Your task to perform on an android device: turn on location history Image 0: 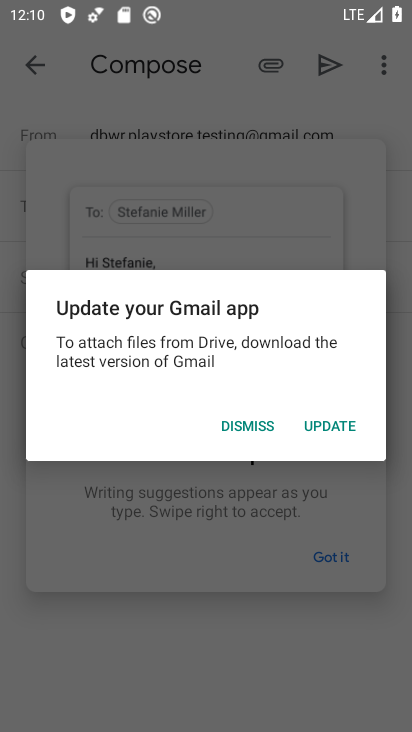
Step 0: press home button
Your task to perform on an android device: turn on location history Image 1: 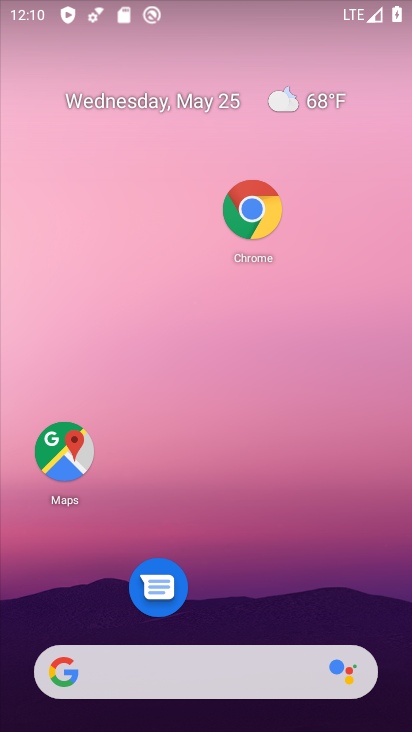
Step 1: drag from (238, 601) to (265, 456)
Your task to perform on an android device: turn on location history Image 2: 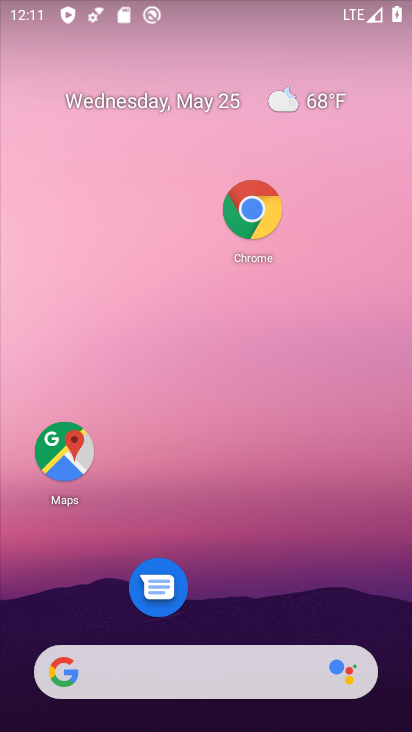
Step 2: drag from (227, 607) to (259, 235)
Your task to perform on an android device: turn on location history Image 3: 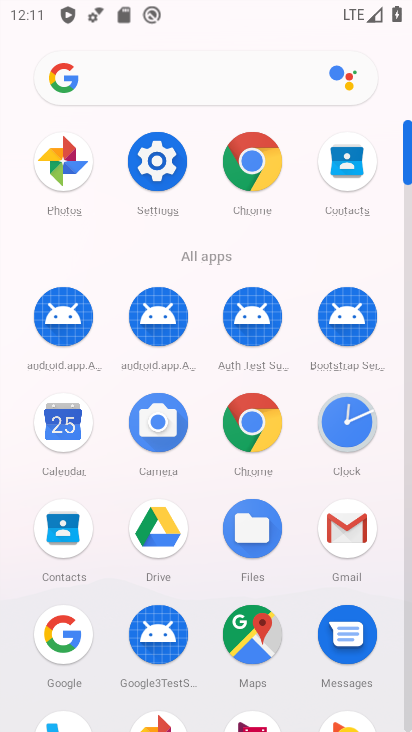
Step 3: click (164, 150)
Your task to perform on an android device: turn on location history Image 4: 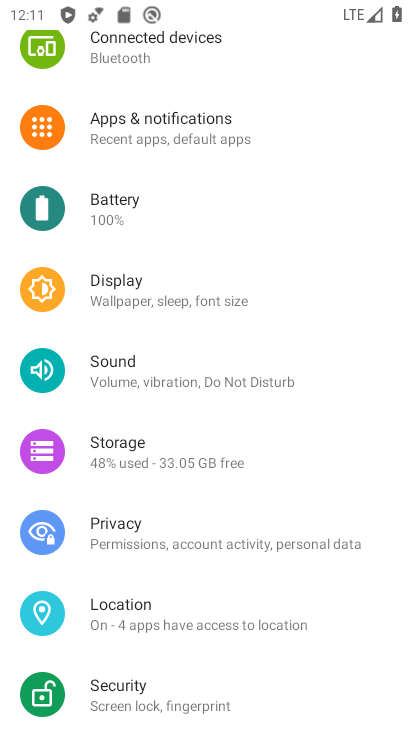
Step 4: click (172, 605)
Your task to perform on an android device: turn on location history Image 5: 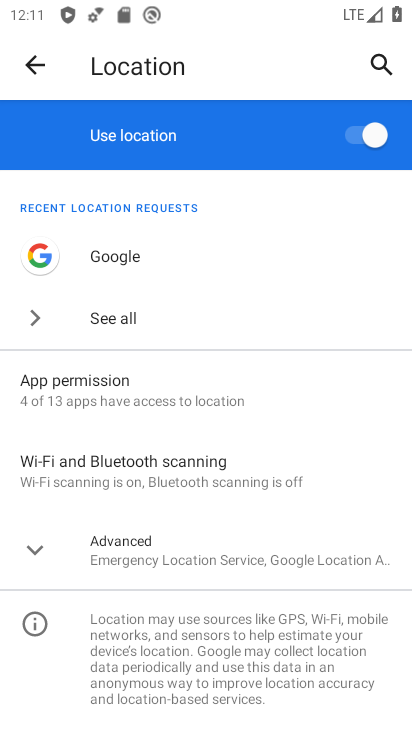
Step 5: click (58, 551)
Your task to perform on an android device: turn on location history Image 6: 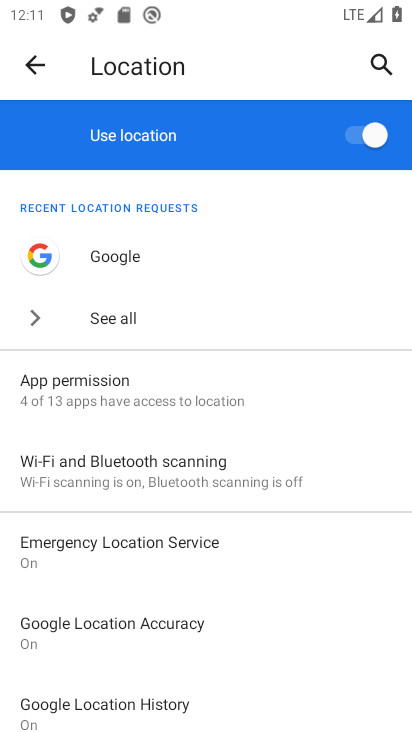
Step 6: click (202, 697)
Your task to perform on an android device: turn on location history Image 7: 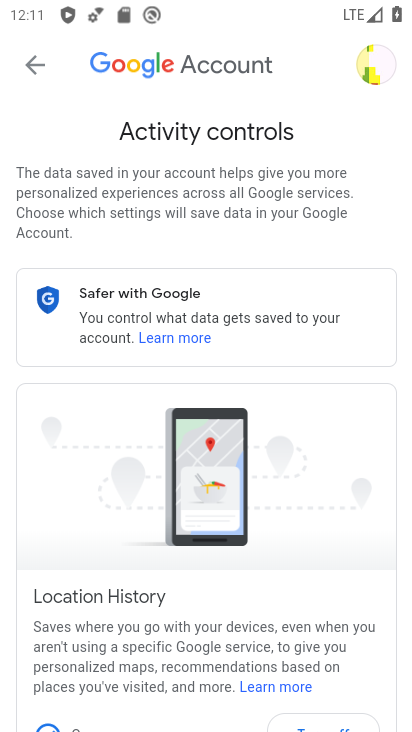
Step 7: task complete